Your task to perform on an android device: allow cookies in the chrome app Image 0: 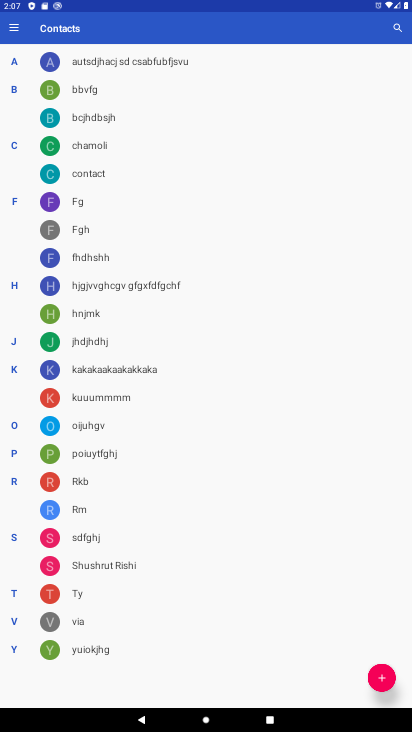
Step 0: press home button
Your task to perform on an android device: allow cookies in the chrome app Image 1: 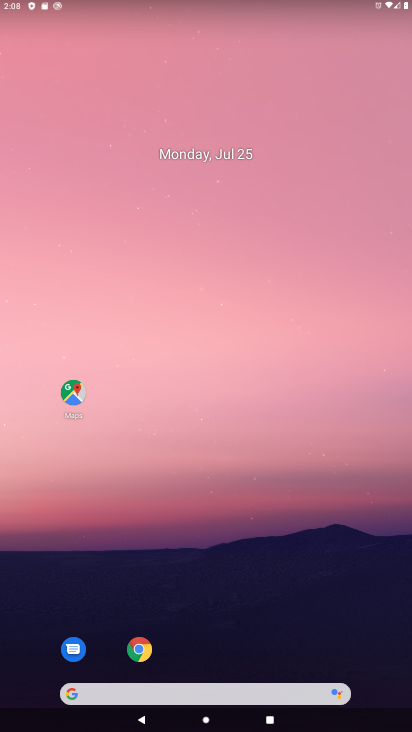
Step 1: click (138, 650)
Your task to perform on an android device: allow cookies in the chrome app Image 2: 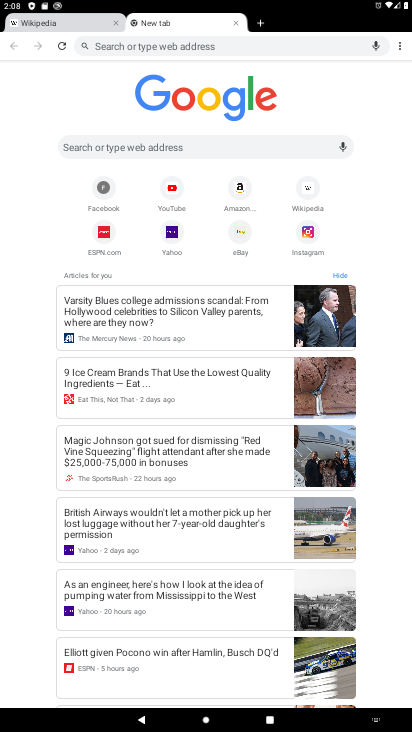
Step 2: click (399, 51)
Your task to perform on an android device: allow cookies in the chrome app Image 3: 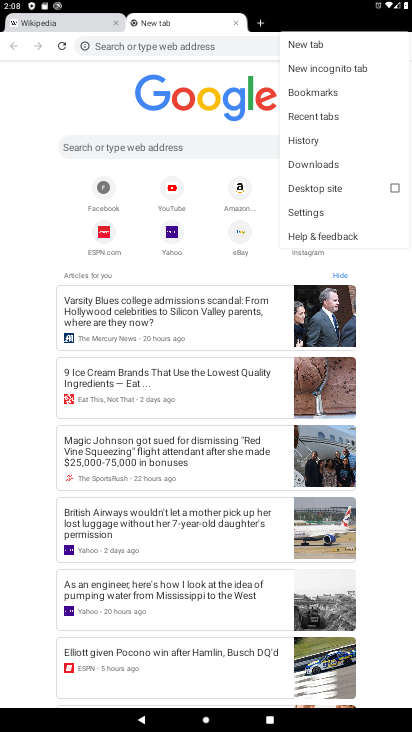
Step 3: click (310, 219)
Your task to perform on an android device: allow cookies in the chrome app Image 4: 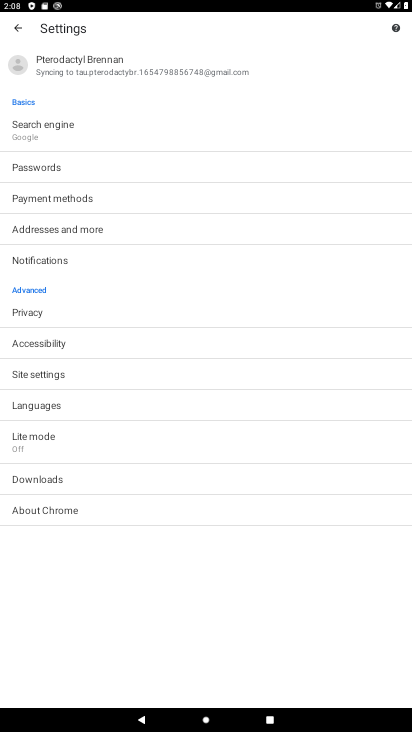
Step 4: click (32, 374)
Your task to perform on an android device: allow cookies in the chrome app Image 5: 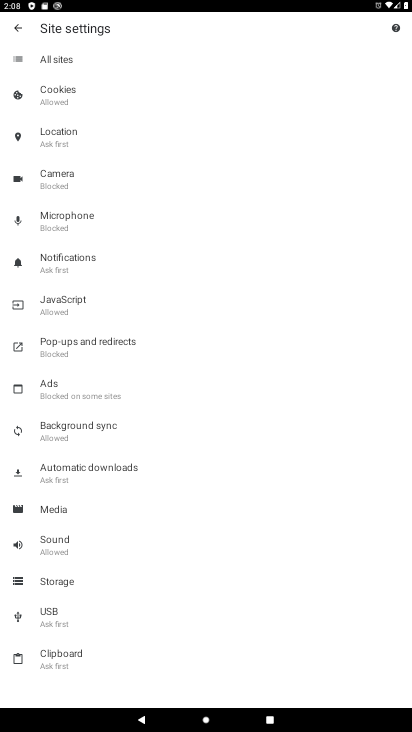
Step 5: click (51, 92)
Your task to perform on an android device: allow cookies in the chrome app Image 6: 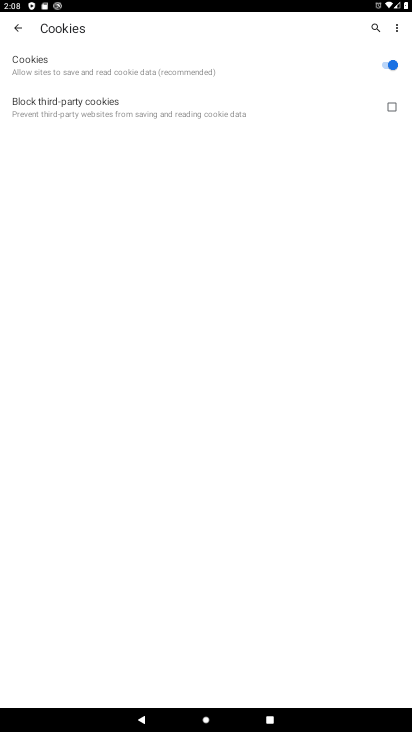
Step 6: task complete